Your task to perform on an android device: turn vacation reply on in the gmail app Image 0: 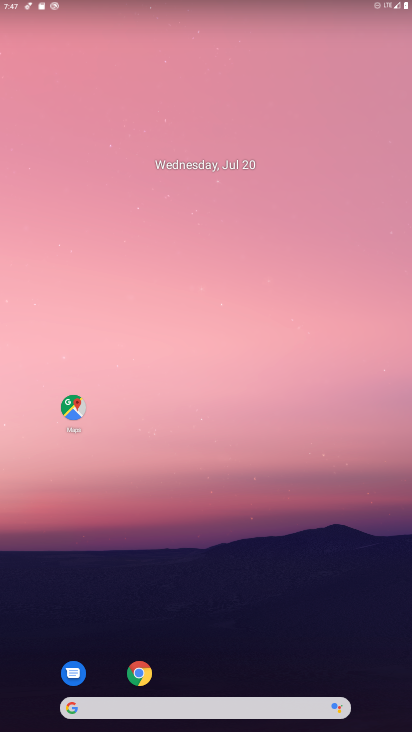
Step 0: drag from (253, 595) to (299, 61)
Your task to perform on an android device: turn vacation reply on in the gmail app Image 1: 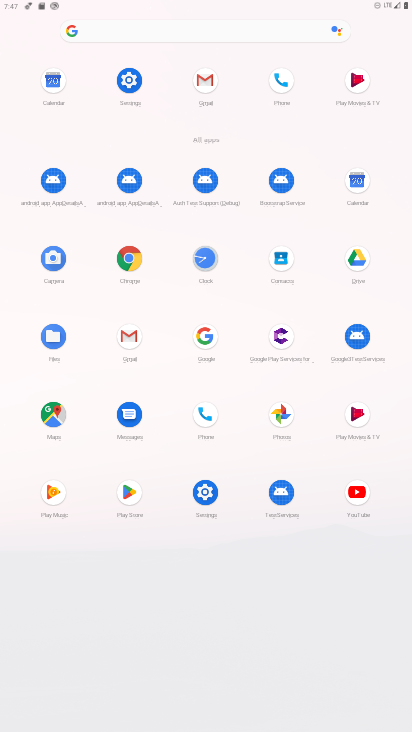
Step 1: click (193, 89)
Your task to perform on an android device: turn vacation reply on in the gmail app Image 2: 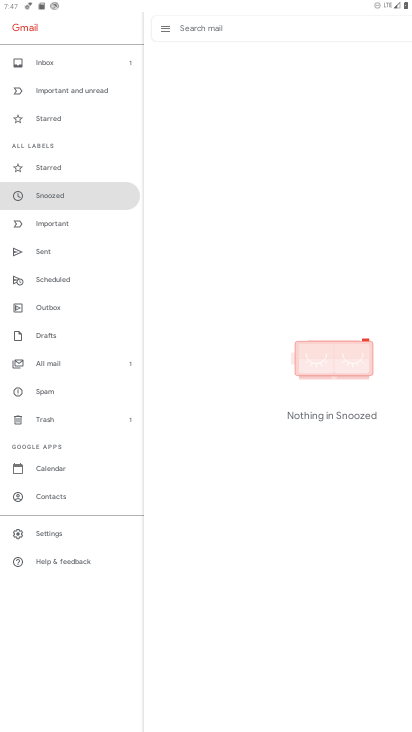
Step 2: click (48, 531)
Your task to perform on an android device: turn vacation reply on in the gmail app Image 3: 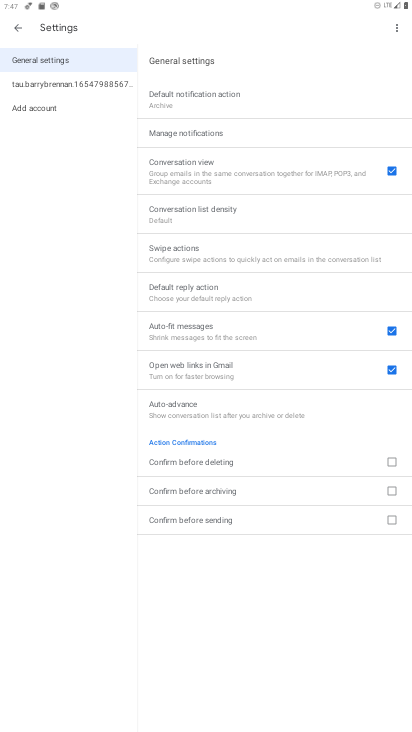
Step 3: click (65, 85)
Your task to perform on an android device: turn vacation reply on in the gmail app Image 4: 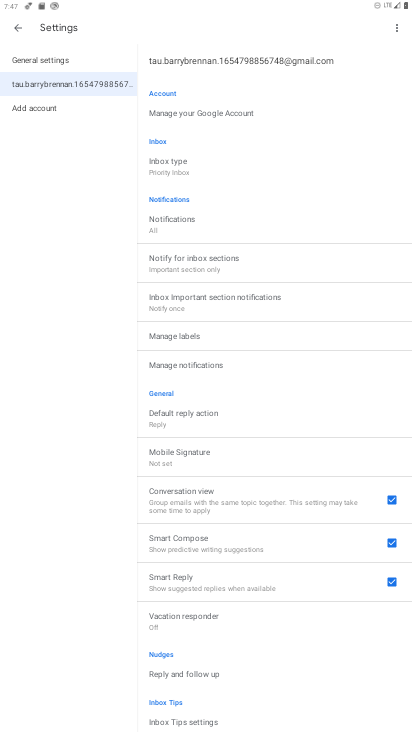
Step 4: click (166, 622)
Your task to perform on an android device: turn vacation reply on in the gmail app Image 5: 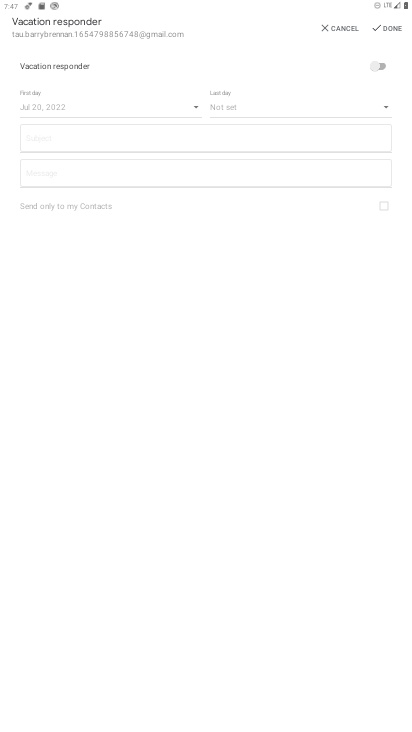
Step 5: click (381, 78)
Your task to perform on an android device: turn vacation reply on in the gmail app Image 6: 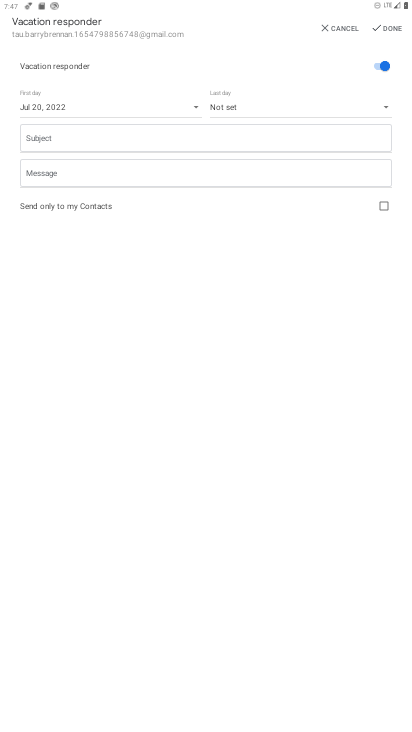
Step 6: task complete